Your task to perform on an android device: turn on priority inbox in the gmail app Image 0: 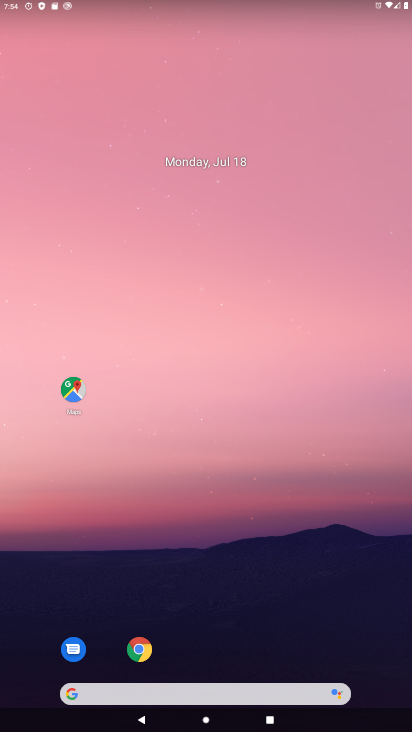
Step 0: drag from (322, 518) to (205, 40)
Your task to perform on an android device: turn on priority inbox in the gmail app Image 1: 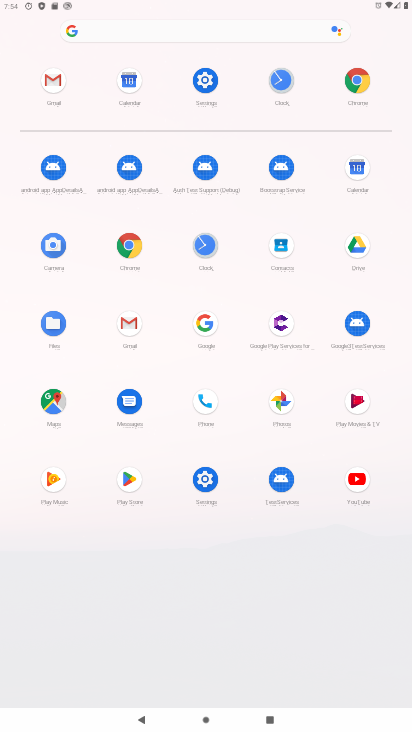
Step 1: click (52, 77)
Your task to perform on an android device: turn on priority inbox in the gmail app Image 2: 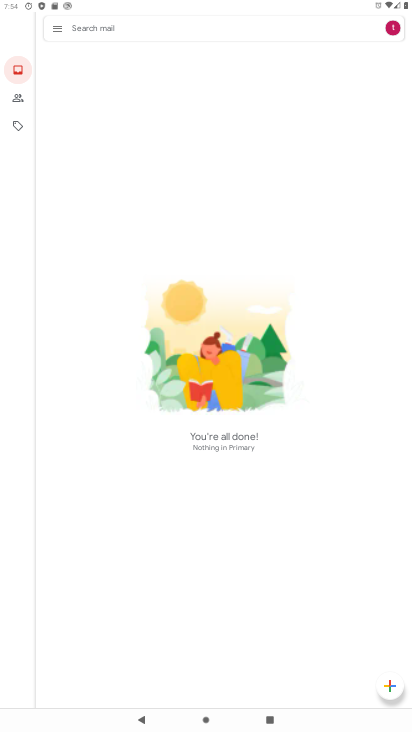
Step 2: click (59, 26)
Your task to perform on an android device: turn on priority inbox in the gmail app Image 3: 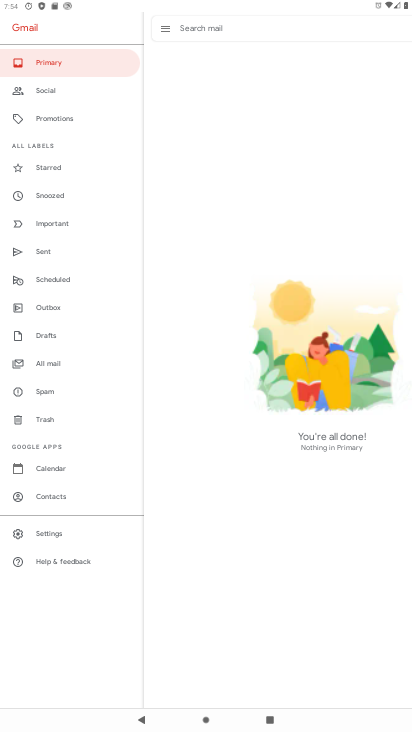
Step 3: click (63, 542)
Your task to perform on an android device: turn on priority inbox in the gmail app Image 4: 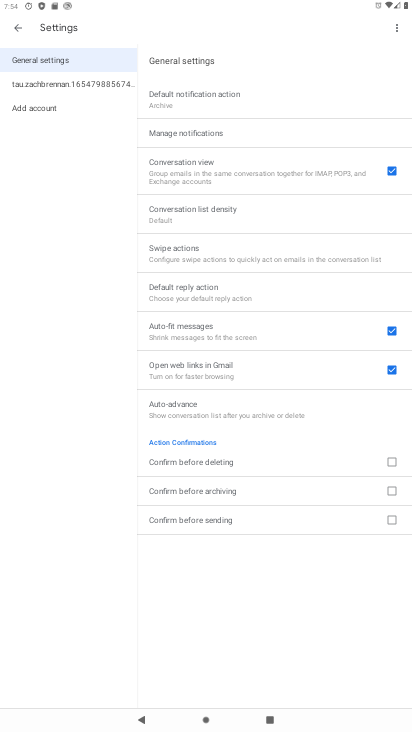
Step 4: click (57, 79)
Your task to perform on an android device: turn on priority inbox in the gmail app Image 5: 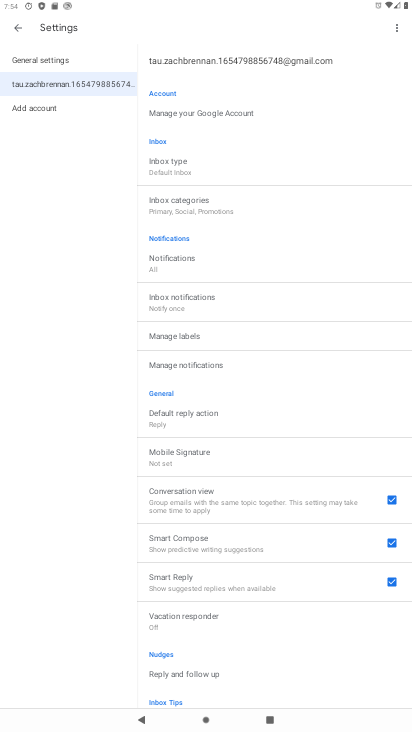
Step 5: drag from (219, 156) to (218, 543)
Your task to perform on an android device: turn on priority inbox in the gmail app Image 6: 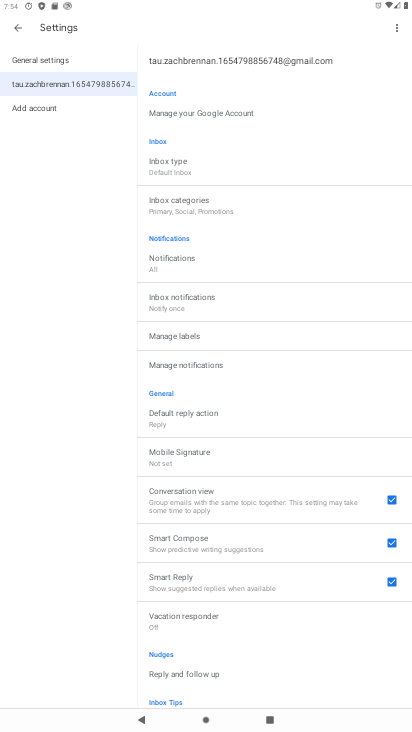
Step 6: click (177, 176)
Your task to perform on an android device: turn on priority inbox in the gmail app Image 7: 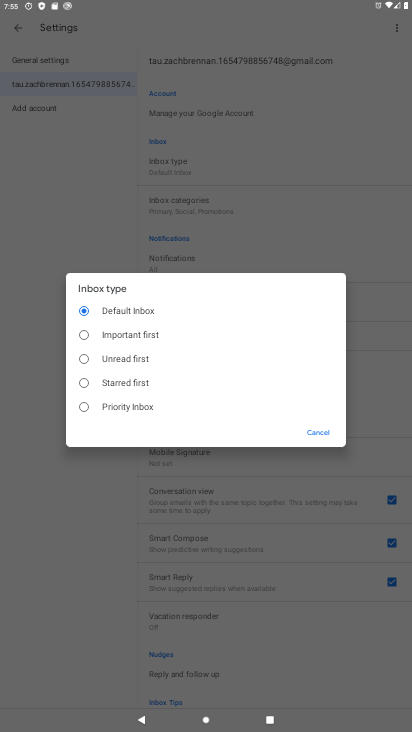
Step 7: task complete